Your task to perform on an android device: Show me productivity apps on the Play Store Image 0: 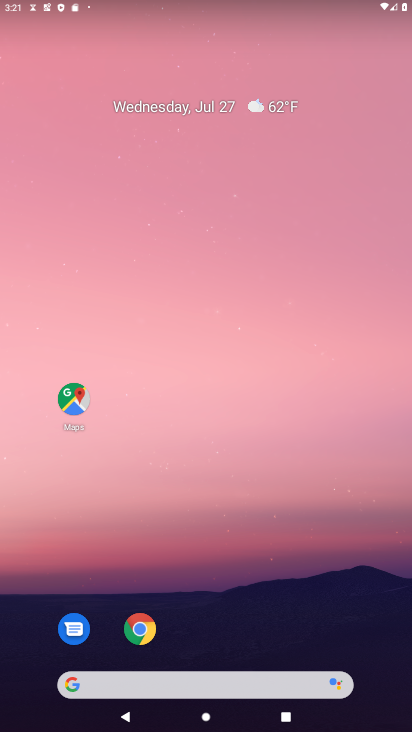
Step 0: drag from (166, 686) to (291, 63)
Your task to perform on an android device: Show me productivity apps on the Play Store Image 1: 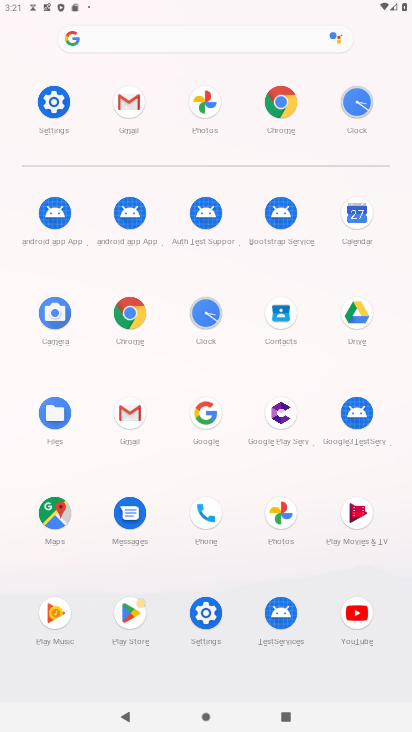
Step 1: click (127, 613)
Your task to perform on an android device: Show me productivity apps on the Play Store Image 2: 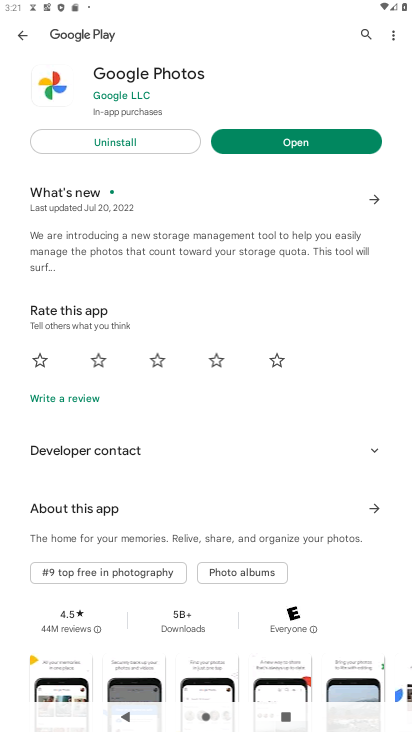
Step 2: press back button
Your task to perform on an android device: Show me productivity apps on the Play Store Image 3: 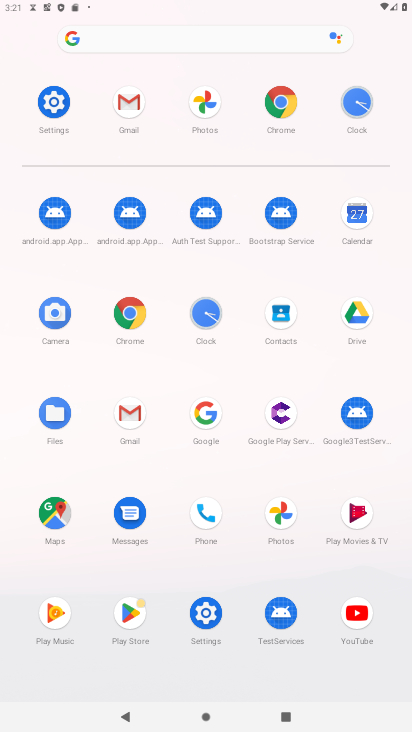
Step 3: click (130, 608)
Your task to perform on an android device: Show me productivity apps on the Play Store Image 4: 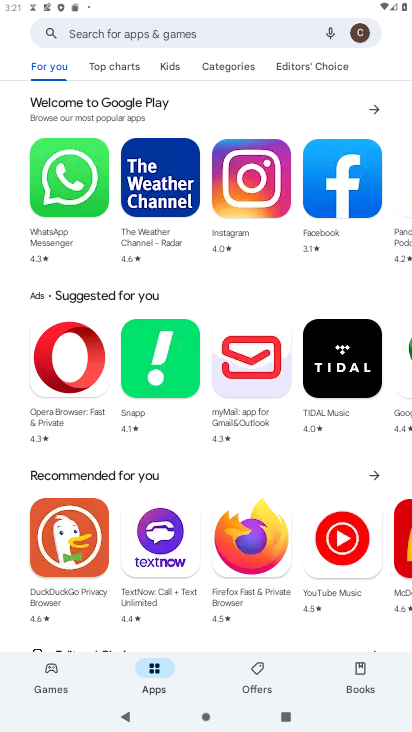
Step 4: click (232, 63)
Your task to perform on an android device: Show me productivity apps on the Play Store Image 5: 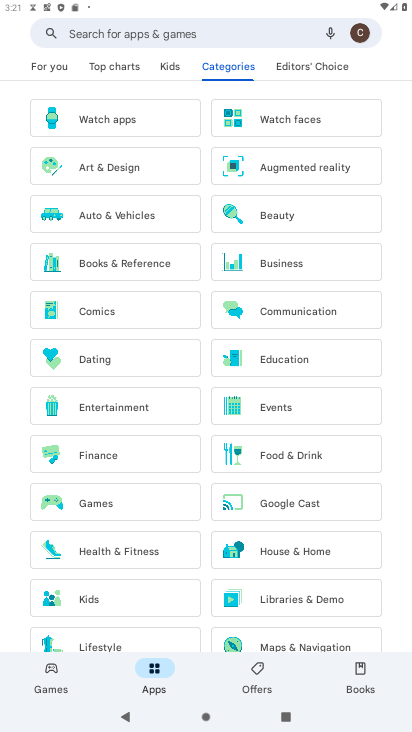
Step 5: drag from (105, 606) to (140, 286)
Your task to perform on an android device: Show me productivity apps on the Play Store Image 6: 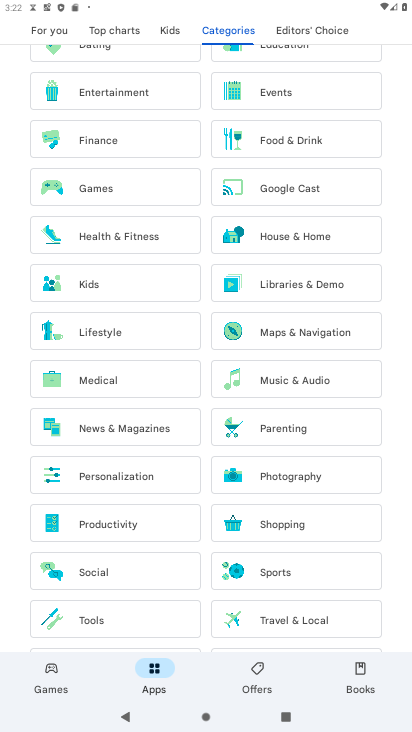
Step 6: click (110, 523)
Your task to perform on an android device: Show me productivity apps on the Play Store Image 7: 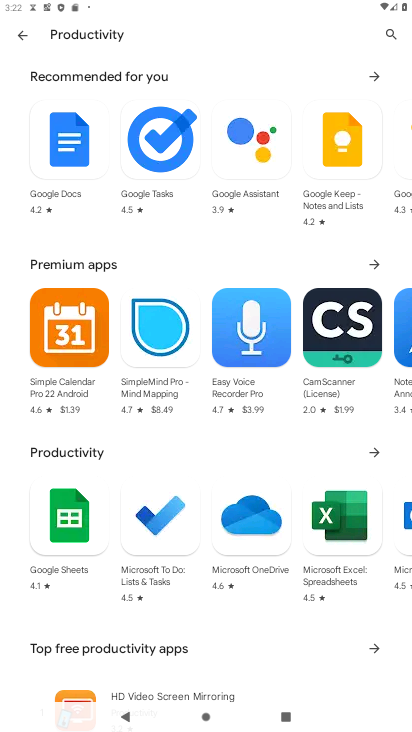
Step 7: task complete